Your task to perform on an android device: Open the calendar app, open the side menu, and click the "Day" option Image 0: 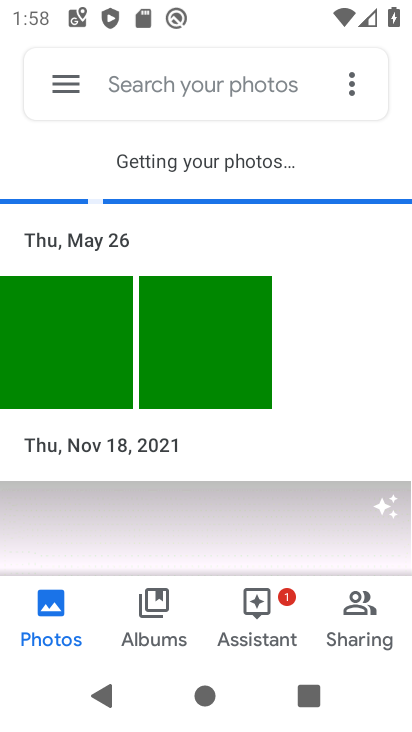
Step 0: press home button
Your task to perform on an android device: Open the calendar app, open the side menu, and click the "Day" option Image 1: 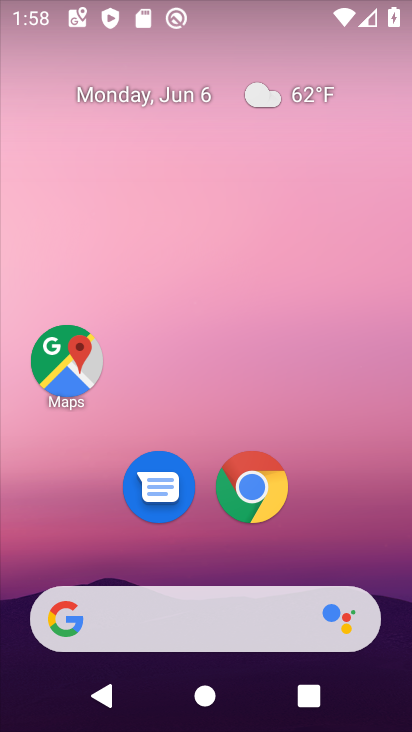
Step 1: drag from (23, 587) to (159, 59)
Your task to perform on an android device: Open the calendar app, open the side menu, and click the "Day" option Image 2: 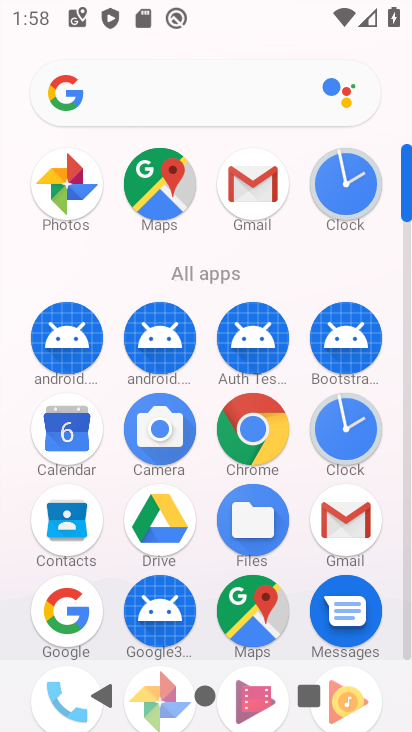
Step 2: click (56, 430)
Your task to perform on an android device: Open the calendar app, open the side menu, and click the "Day" option Image 3: 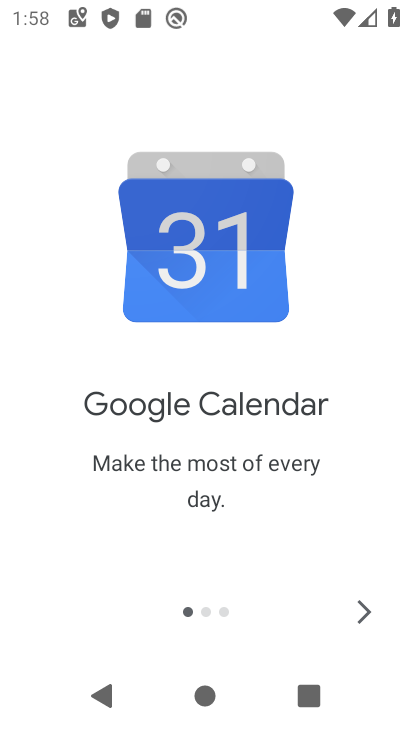
Step 3: click (362, 644)
Your task to perform on an android device: Open the calendar app, open the side menu, and click the "Day" option Image 4: 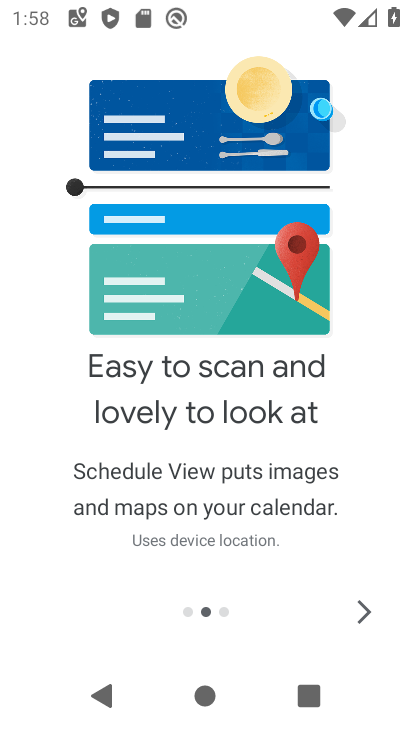
Step 4: click (362, 625)
Your task to perform on an android device: Open the calendar app, open the side menu, and click the "Day" option Image 5: 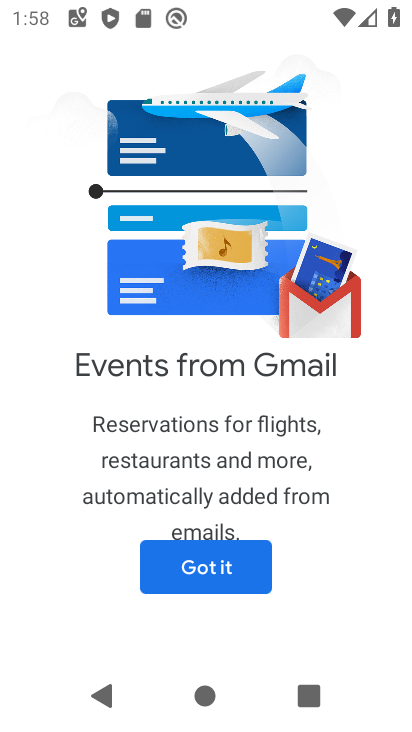
Step 5: click (231, 578)
Your task to perform on an android device: Open the calendar app, open the side menu, and click the "Day" option Image 6: 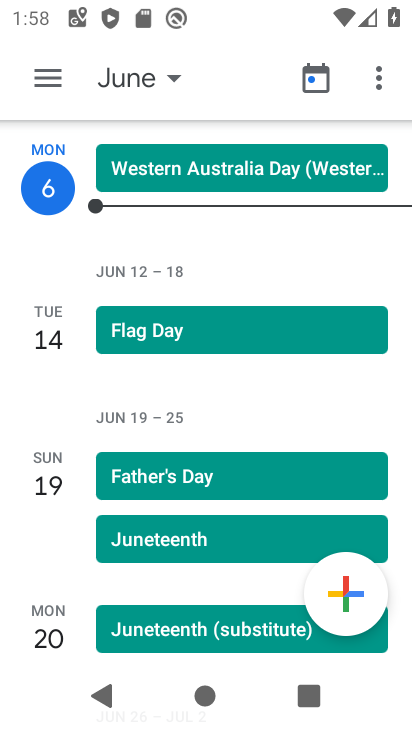
Step 6: click (39, 79)
Your task to perform on an android device: Open the calendar app, open the side menu, and click the "Day" option Image 7: 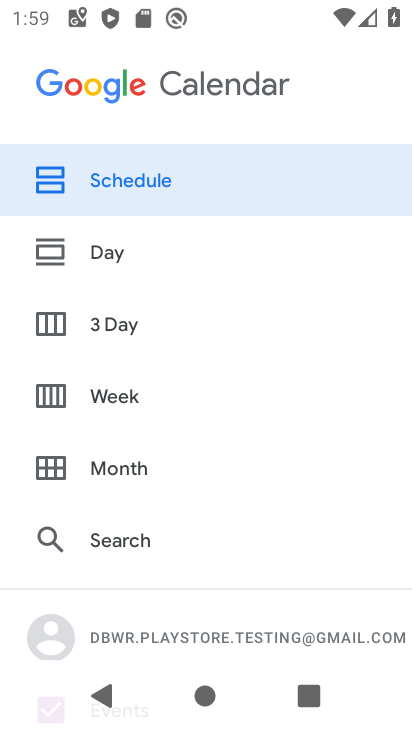
Step 7: click (135, 251)
Your task to perform on an android device: Open the calendar app, open the side menu, and click the "Day" option Image 8: 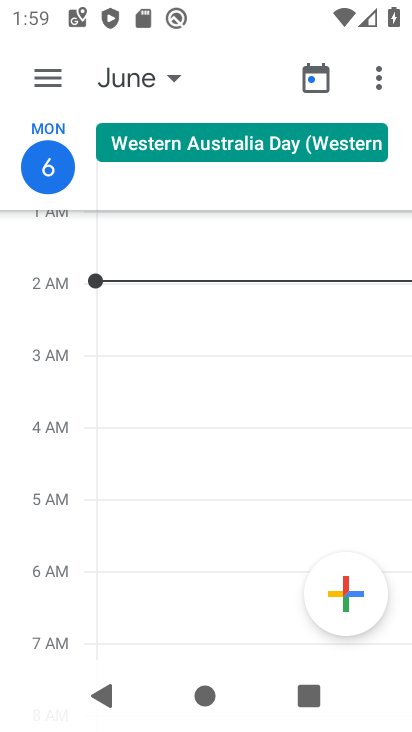
Step 8: task complete